Your task to perform on an android device: change notifications settings Image 0: 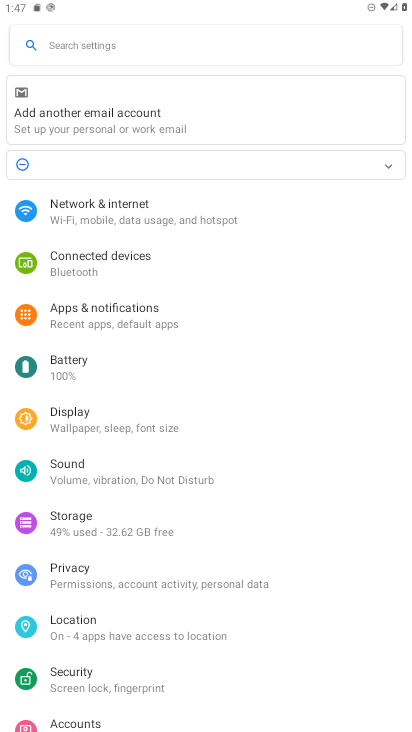
Step 0: task complete